Your task to perform on an android device: refresh tabs in the chrome app Image 0: 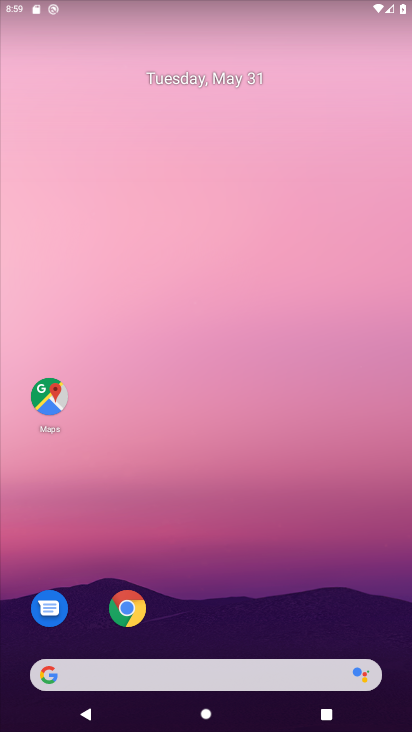
Step 0: click (125, 611)
Your task to perform on an android device: refresh tabs in the chrome app Image 1: 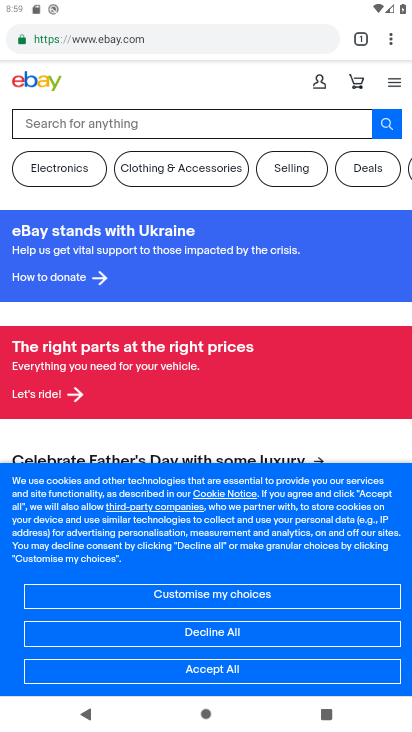
Step 1: click (390, 40)
Your task to perform on an android device: refresh tabs in the chrome app Image 2: 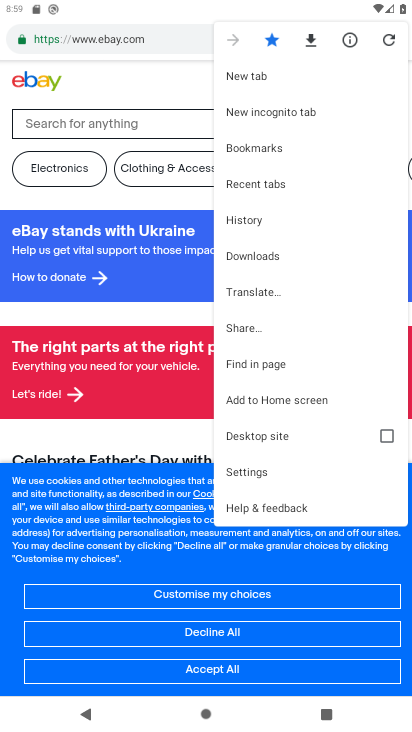
Step 2: click (390, 40)
Your task to perform on an android device: refresh tabs in the chrome app Image 3: 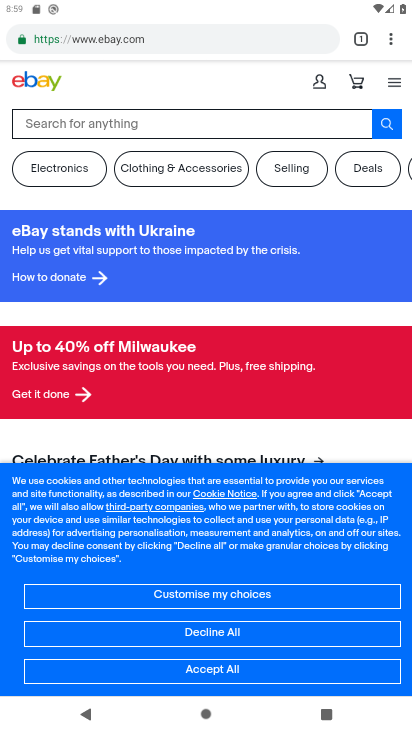
Step 3: task complete